Your task to perform on an android device: search for starred emails in the gmail app Image 0: 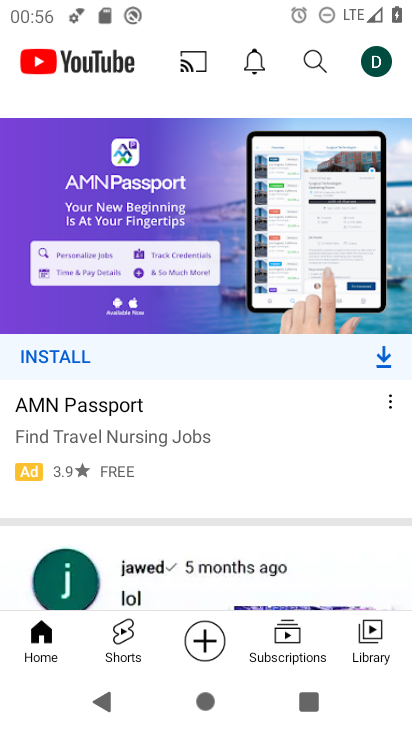
Step 0: press home button
Your task to perform on an android device: search for starred emails in the gmail app Image 1: 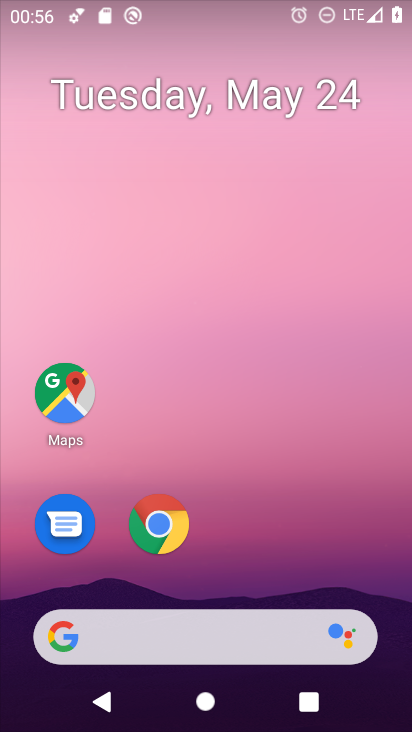
Step 1: drag from (215, 565) to (232, 140)
Your task to perform on an android device: search for starred emails in the gmail app Image 2: 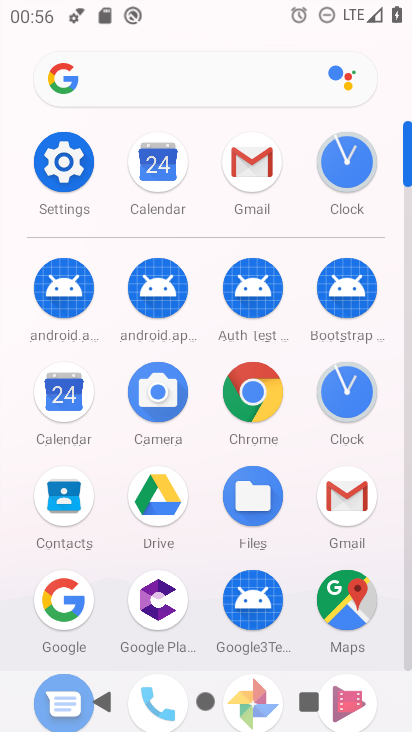
Step 2: click (238, 154)
Your task to perform on an android device: search for starred emails in the gmail app Image 3: 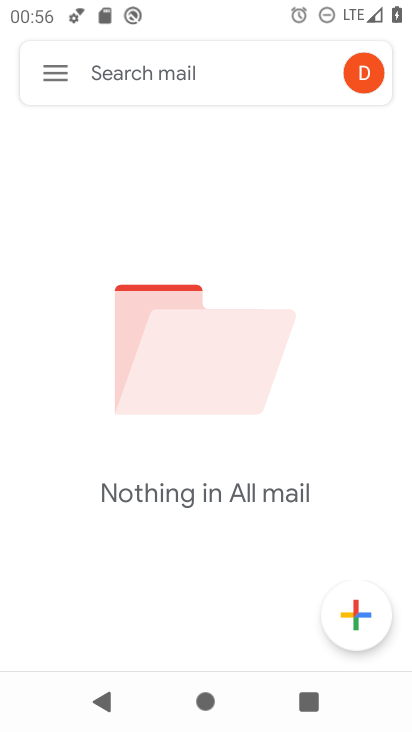
Step 3: click (54, 77)
Your task to perform on an android device: search for starred emails in the gmail app Image 4: 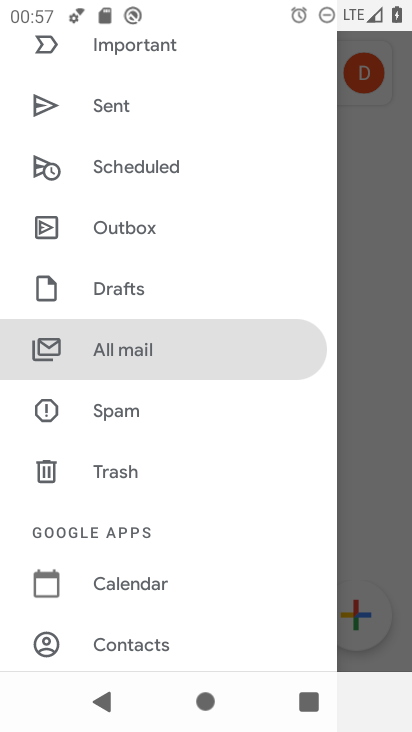
Step 4: drag from (149, 93) to (194, 353)
Your task to perform on an android device: search for starred emails in the gmail app Image 5: 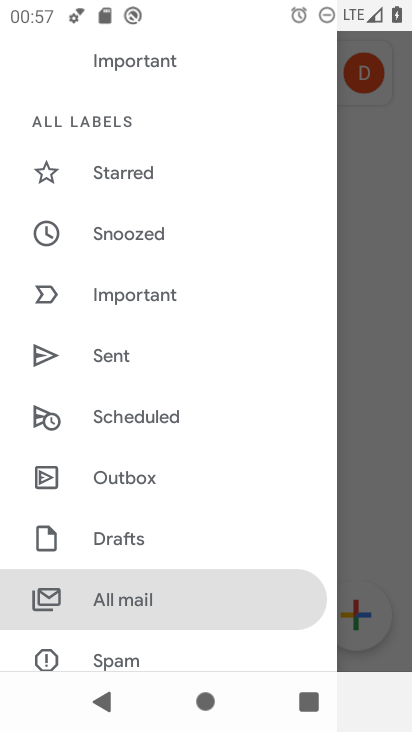
Step 5: click (149, 180)
Your task to perform on an android device: search for starred emails in the gmail app Image 6: 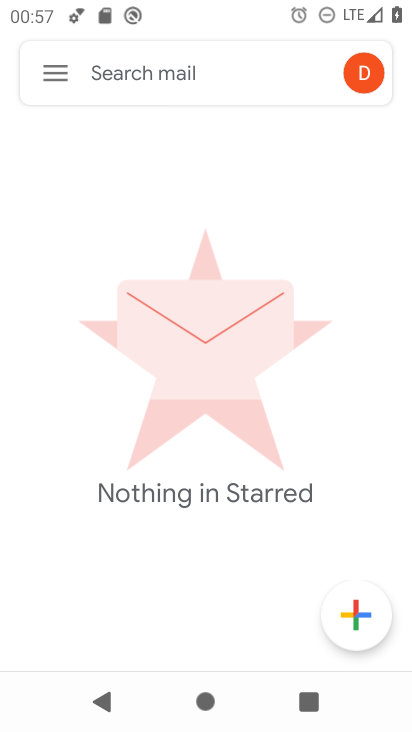
Step 6: task complete